Your task to perform on an android device: turn off location history Image 0: 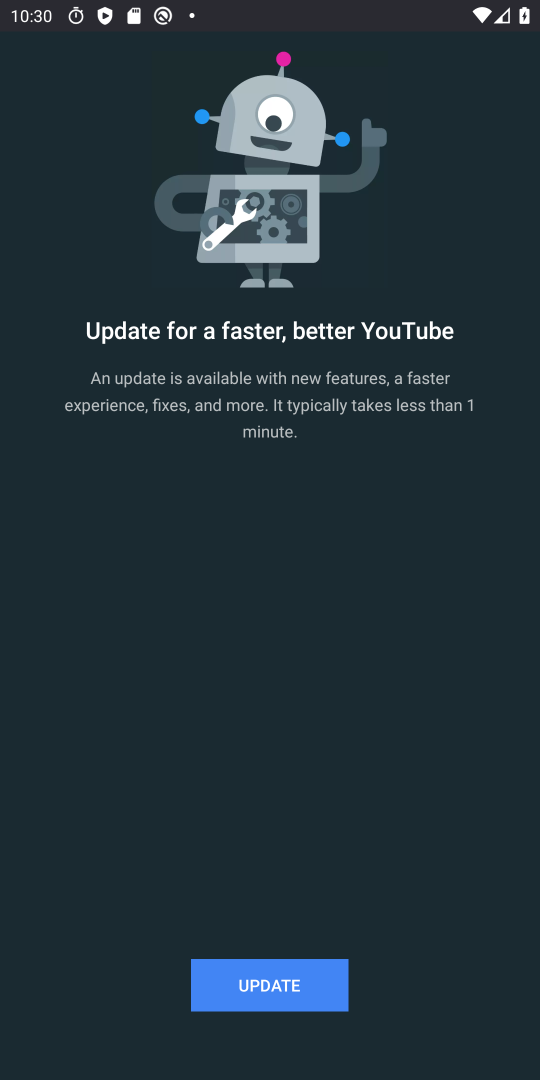
Step 0: press home button
Your task to perform on an android device: turn off location history Image 1: 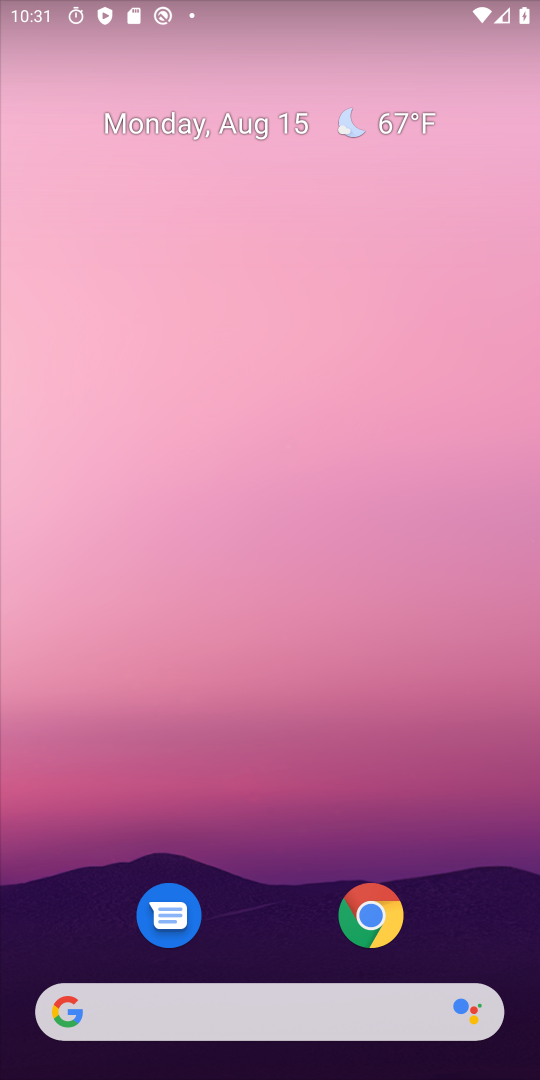
Step 1: drag from (494, 896) to (374, 318)
Your task to perform on an android device: turn off location history Image 2: 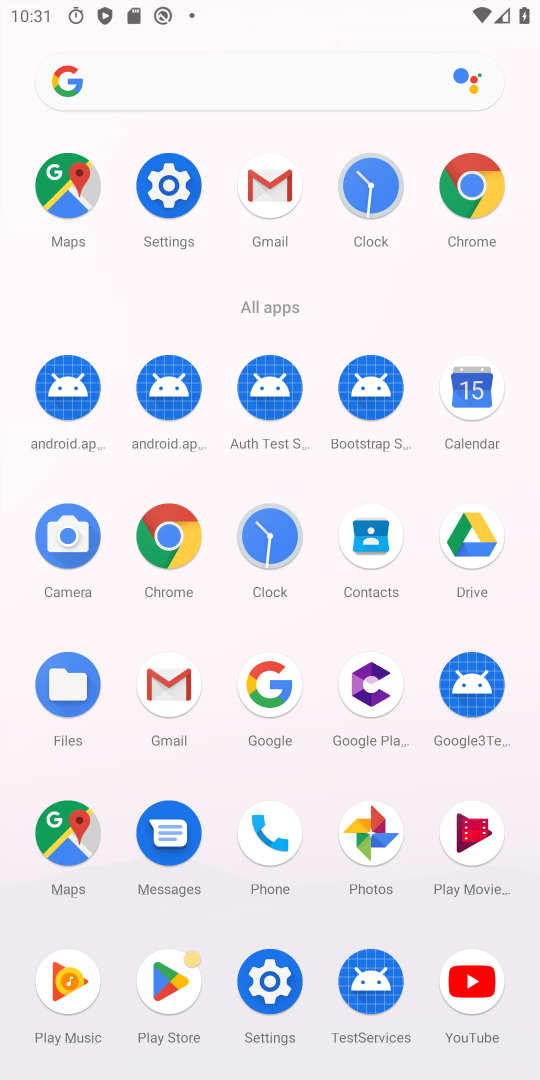
Step 2: click (261, 990)
Your task to perform on an android device: turn off location history Image 3: 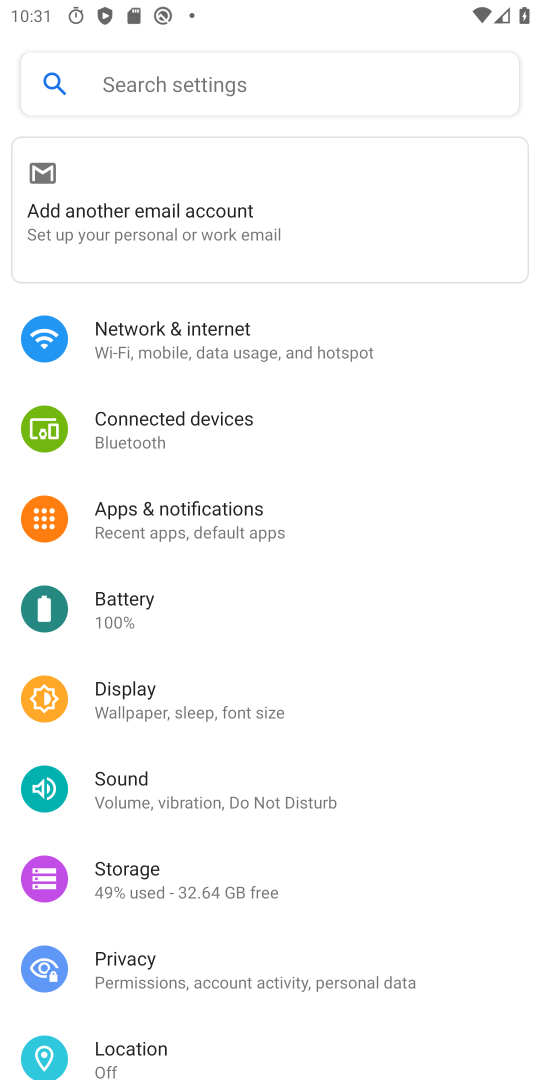
Step 3: click (176, 1043)
Your task to perform on an android device: turn off location history Image 4: 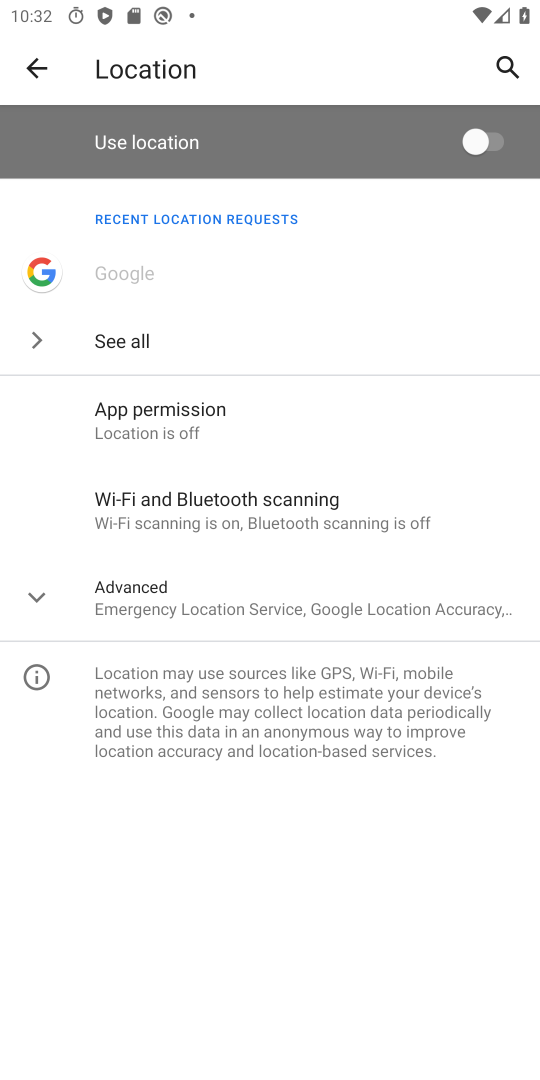
Step 4: click (148, 590)
Your task to perform on an android device: turn off location history Image 5: 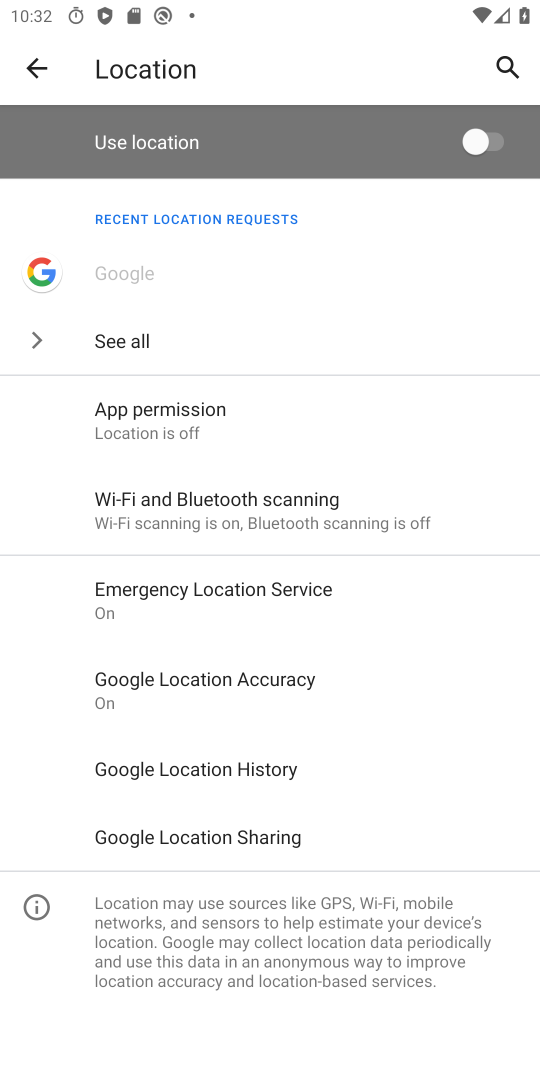
Step 5: click (305, 770)
Your task to perform on an android device: turn off location history Image 6: 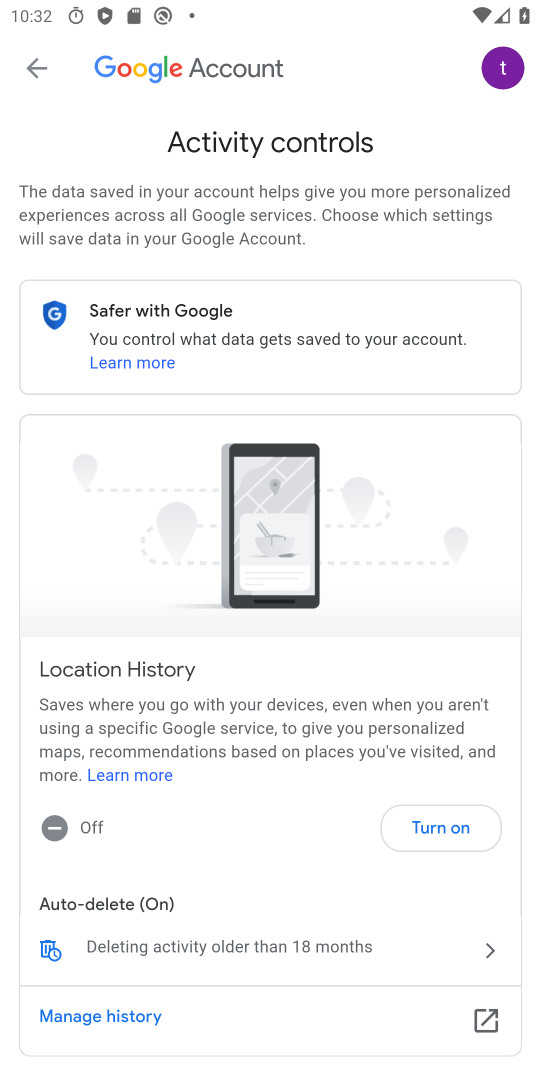
Step 6: task complete